Your task to perform on an android device: set an alarm Image 0: 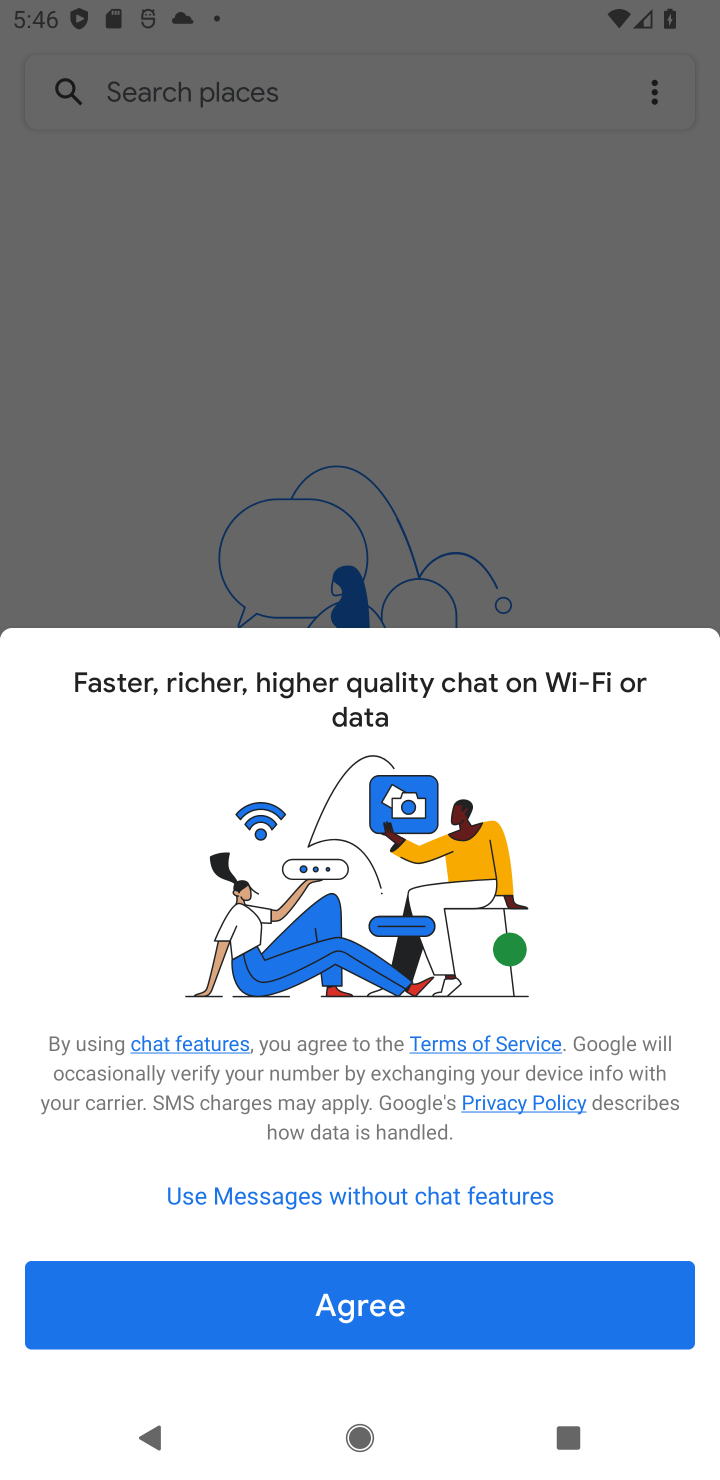
Step 0: click (373, 1275)
Your task to perform on an android device: set an alarm Image 1: 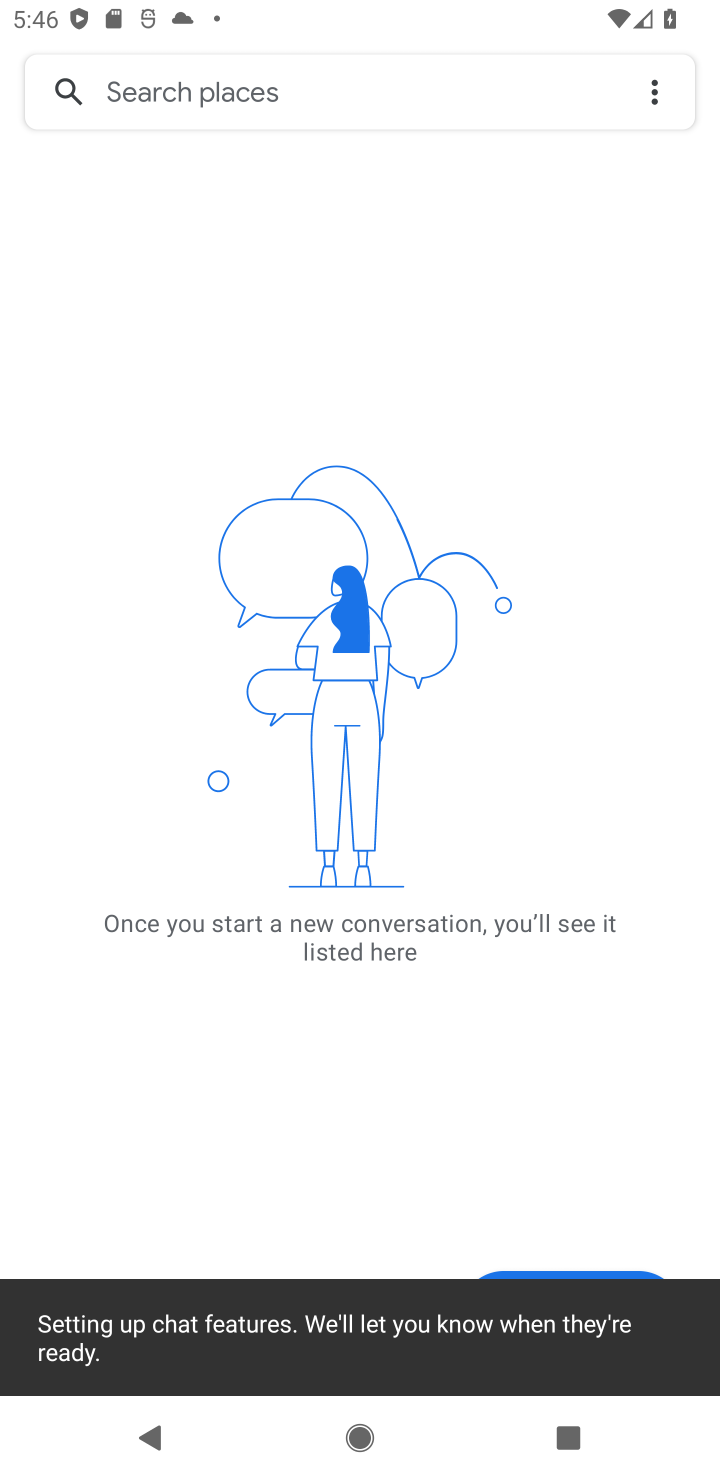
Step 1: press home button
Your task to perform on an android device: set an alarm Image 2: 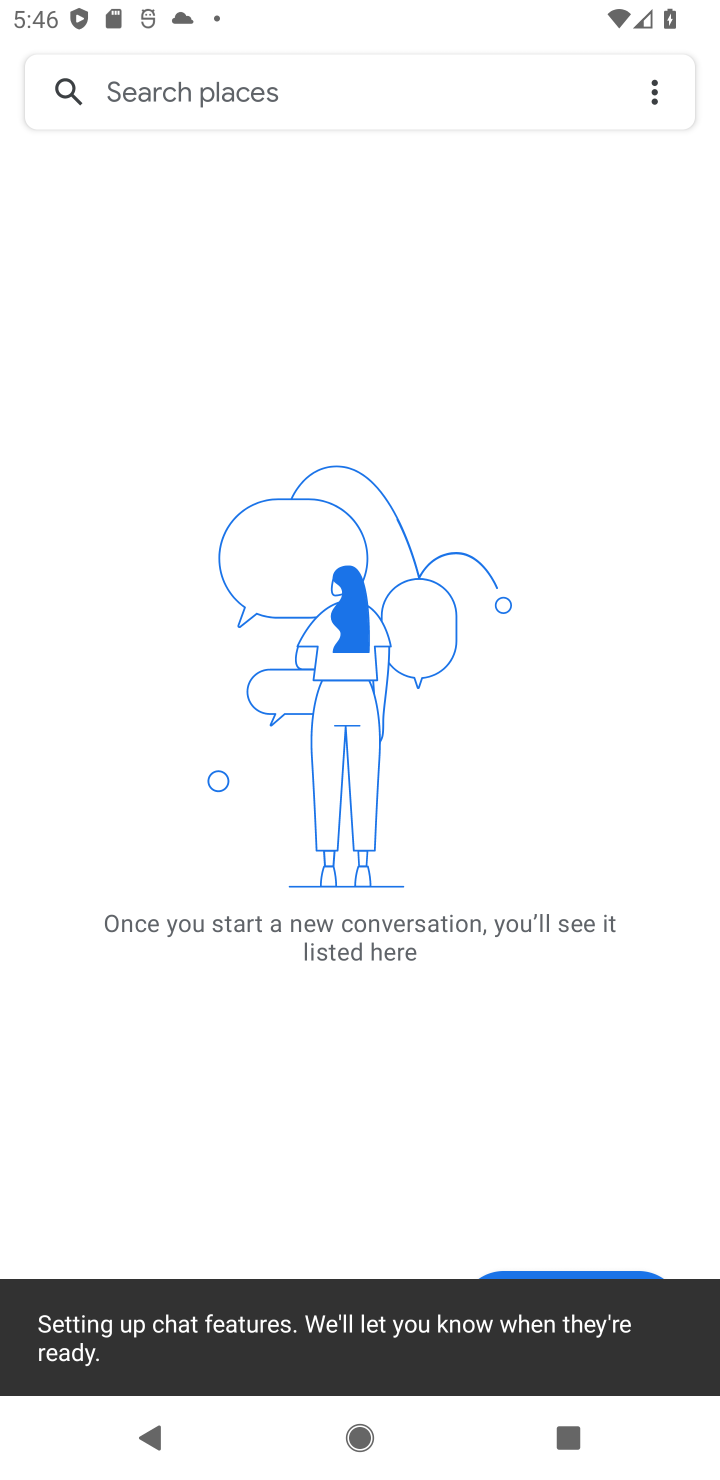
Step 2: press home button
Your task to perform on an android device: set an alarm Image 3: 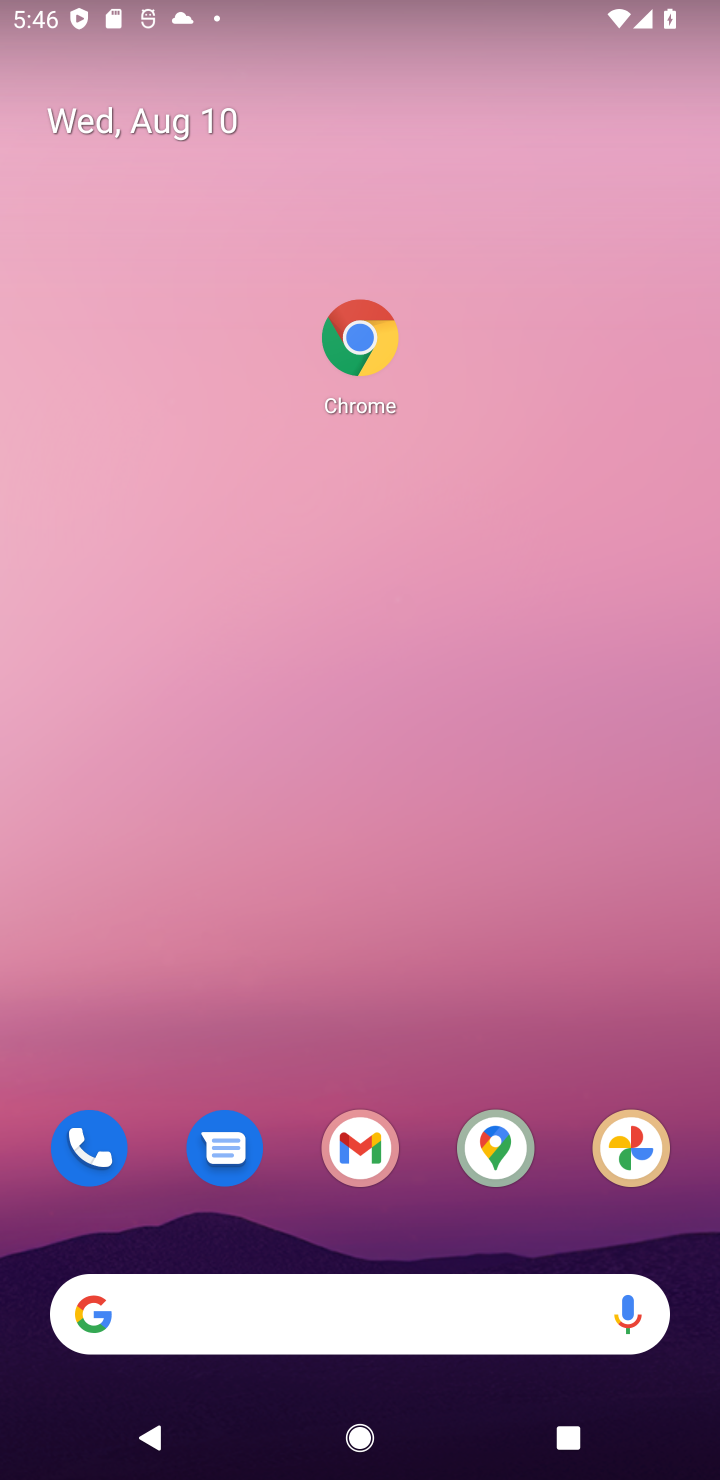
Step 3: drag from (420, 1054) to (457, 50)
Your task to perform on an android device: set an alarm Image 4: 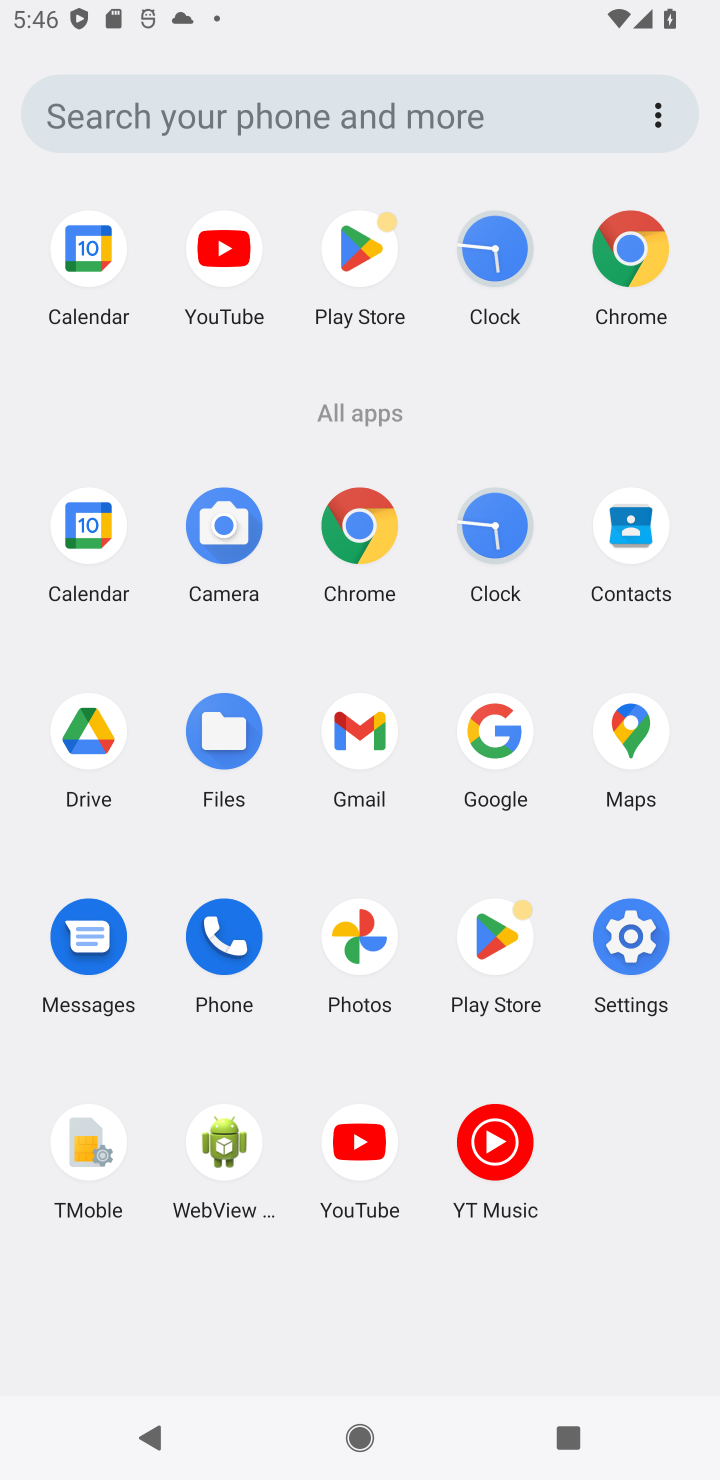
Step 4: click (494, 248)
Your task to perform on an android device: set an alarm Image 5: 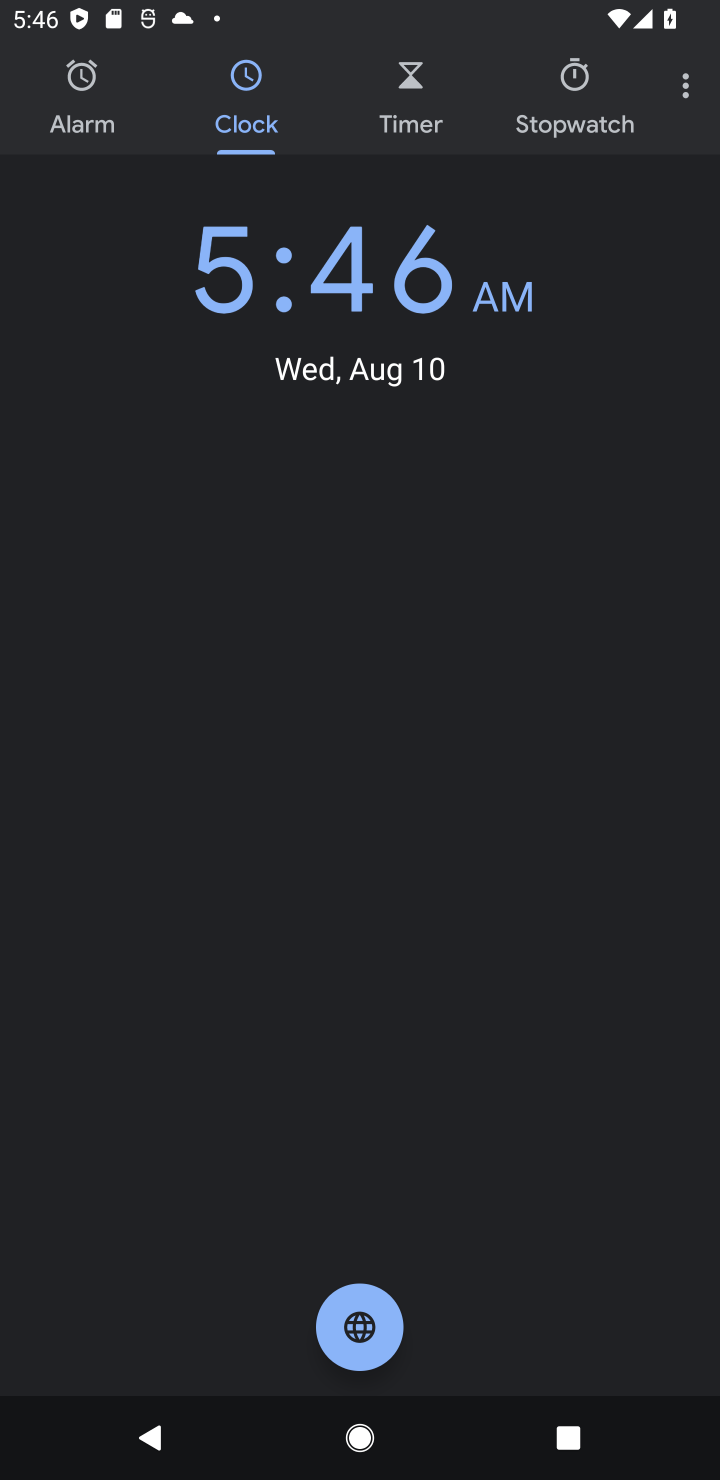
Step 5: click (62, 97)
Your task to perform on an android device: set an alarm Image 6: 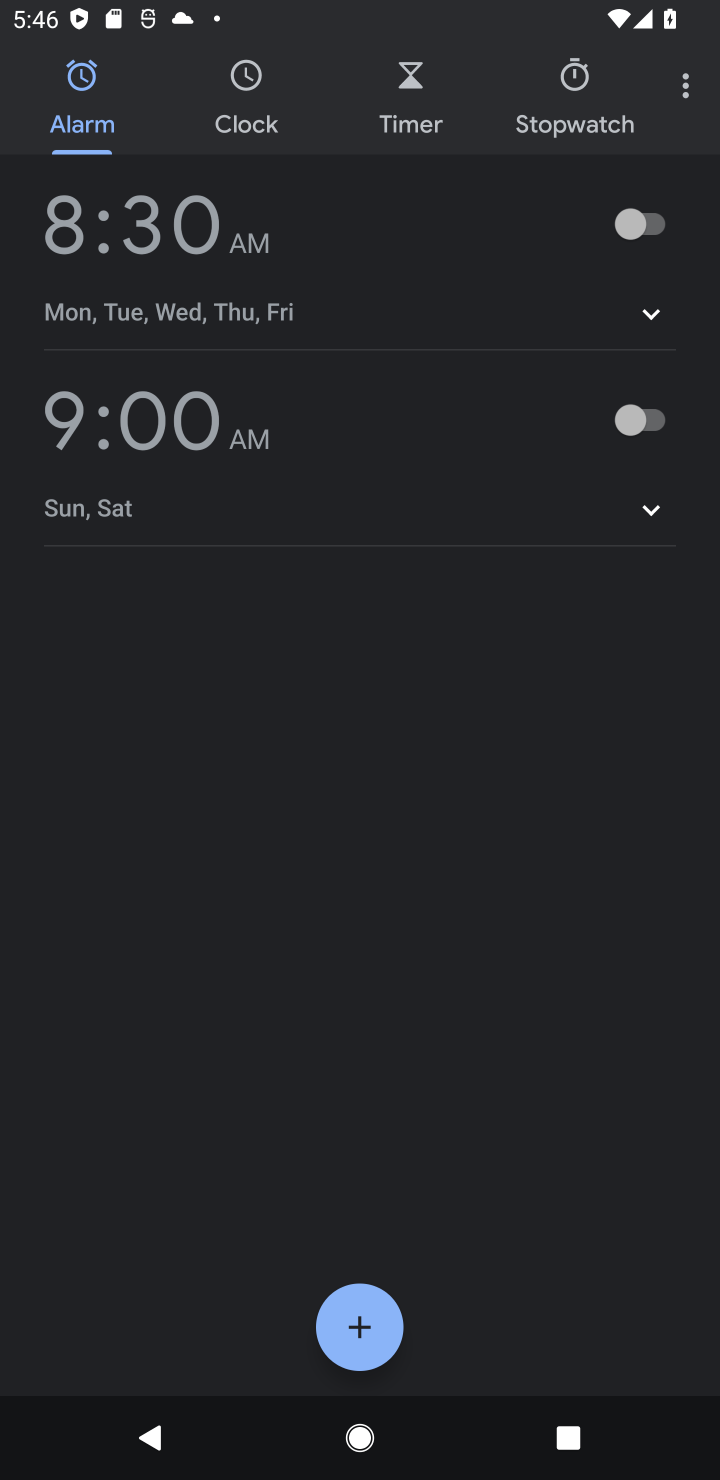
Step 6: click (642, 235)
Your task to perform on an android device: set an alarm Image 7: 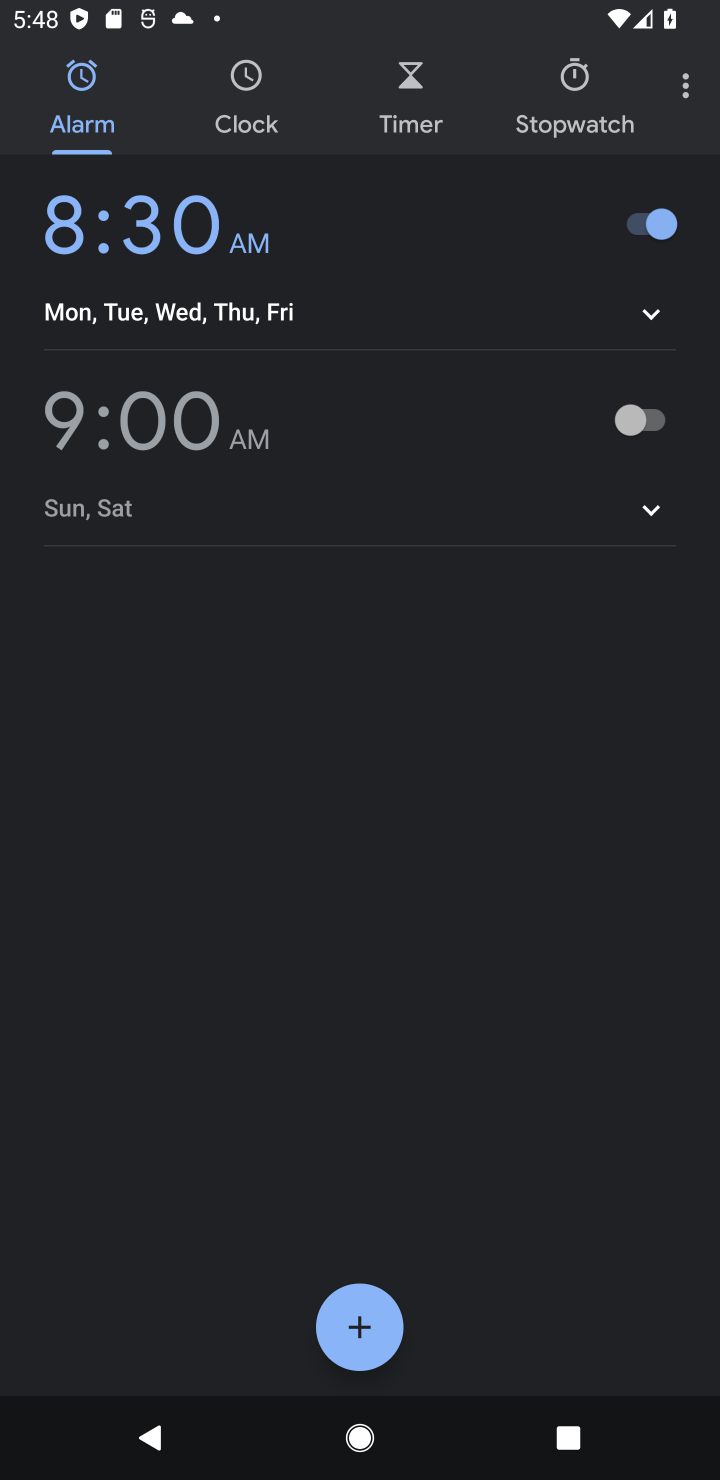
Step 7: task complete